Your task to perform on an android device: Search for floor lamps on article.com Image 0: 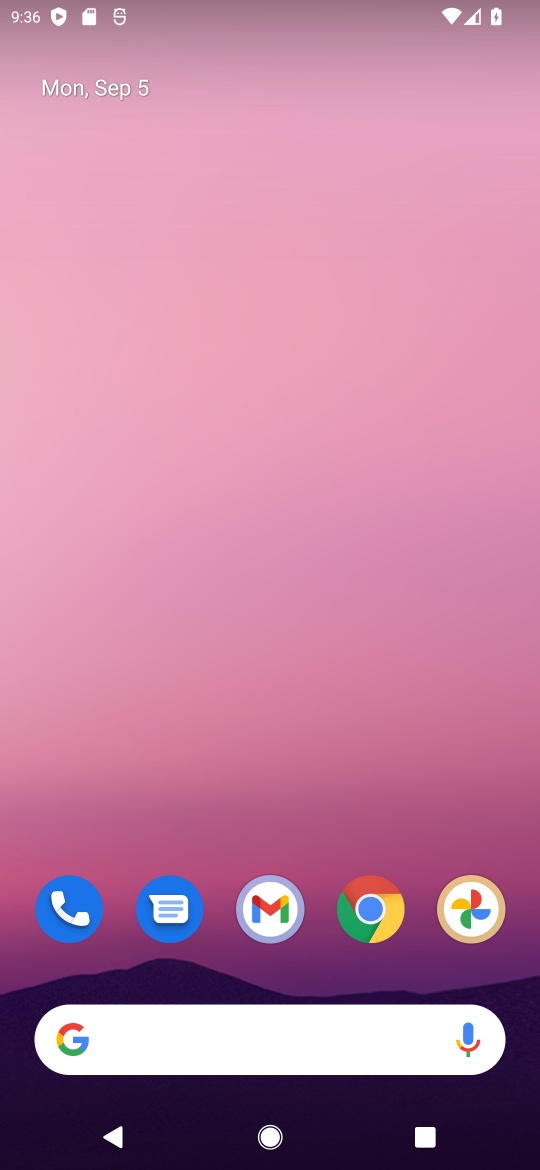
Step 0: click (267, 916)
Your task to perform on an android device: Search for floor lamps on article.com Image 1: 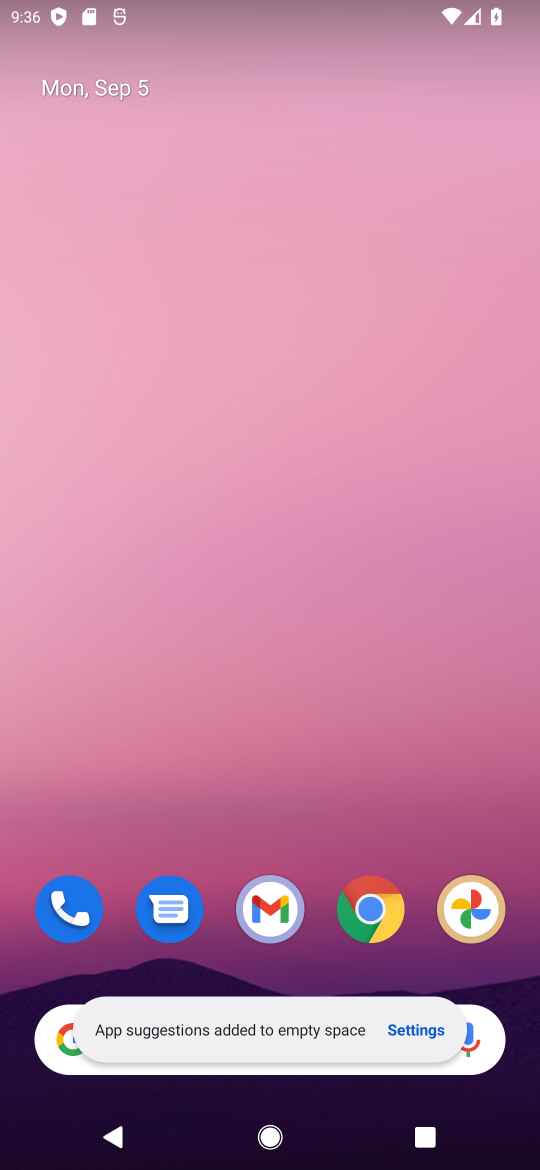
Step 1: task complete